Your task to perform on an android device: Go to network settings Image 0: 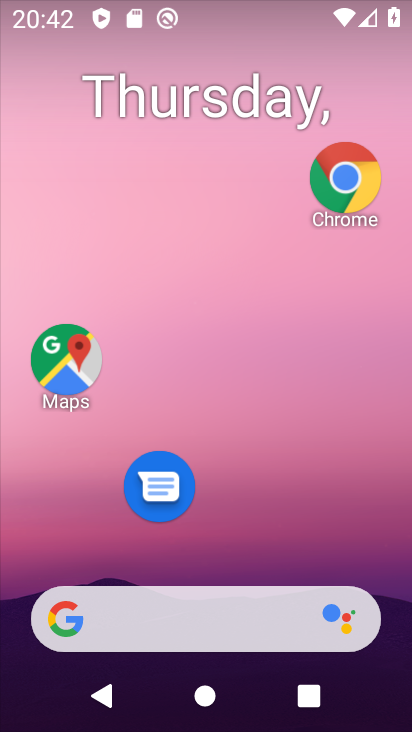
Step 0: drag from (187, 583) to (58, 43)
Your task to perform on an android device: Go to network settings Image 1: 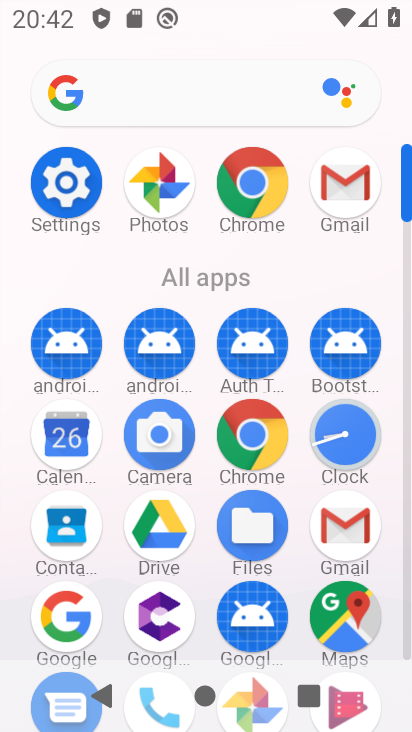
Step 1: click (71, 196)
Your task to perform on an android device: Go to network settings Image 2: 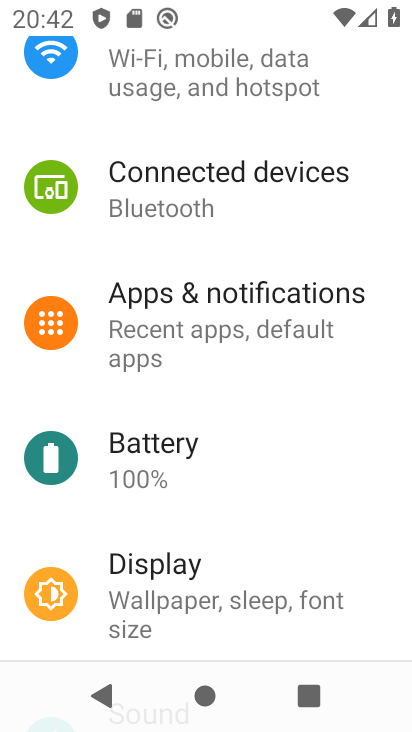
Step 2: drag from (170, 217) to (196, 393)
Your task to perform on an android device: Go to network settings Image 3: 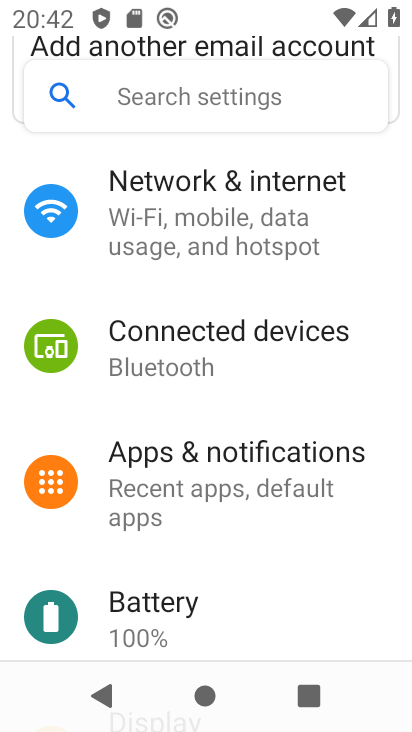
Step 3: click (220, 187)
Your task to perform on an android device: Go to network settings Image 4: 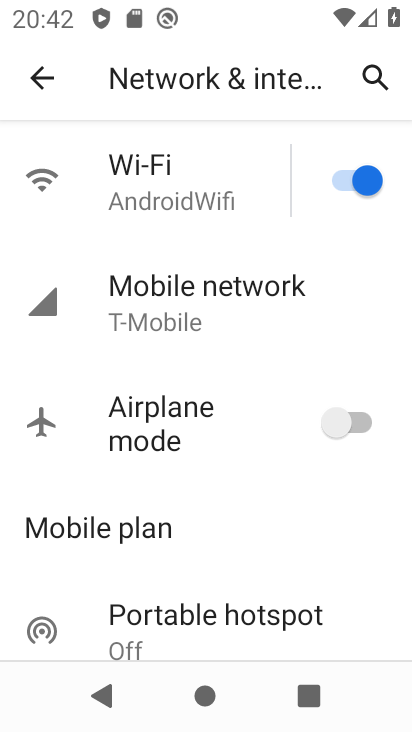
Step 4: click (241, 268)
Your task to perform on an android device: Go to network settings Image 5: 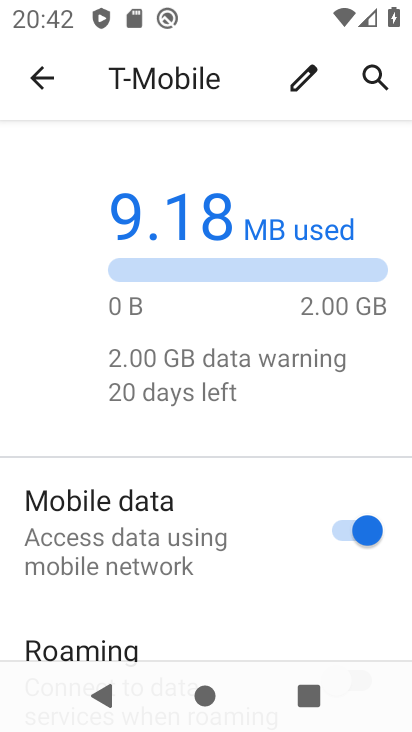
Step 5: task complete